Your task to perform on an android device: Go to Amazon Image 0: 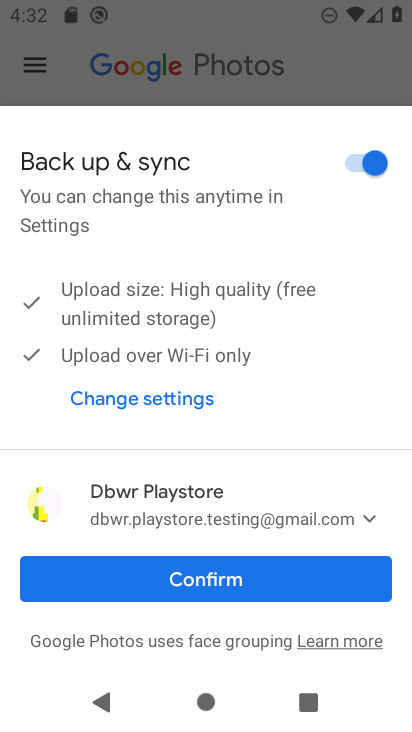
Step 0: press home button
Your task to perform on an android device: Go to Amazon Image 1: 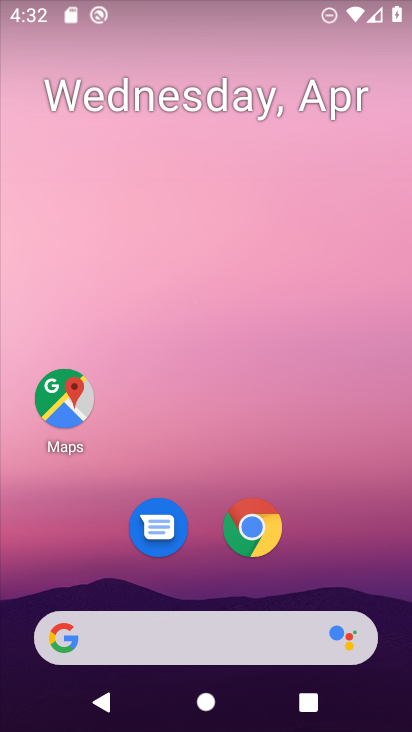
Step 1: click (257, 537)
Your task to perform on an android device: Go to Amazon Image 2: 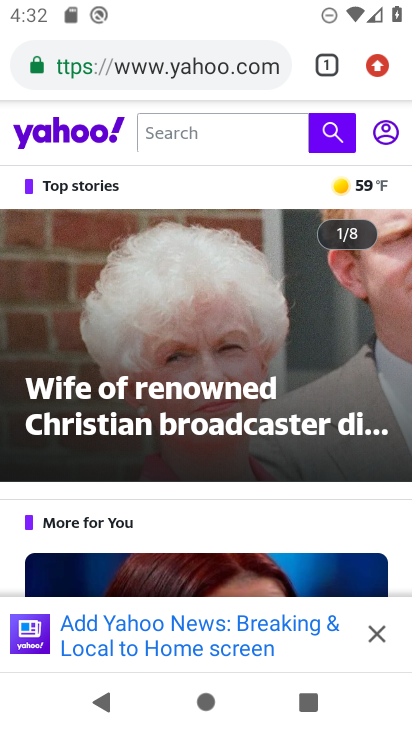
Step 2: click (196, 65)
Your task to perform on an android device: Go to Amazon Image 3: 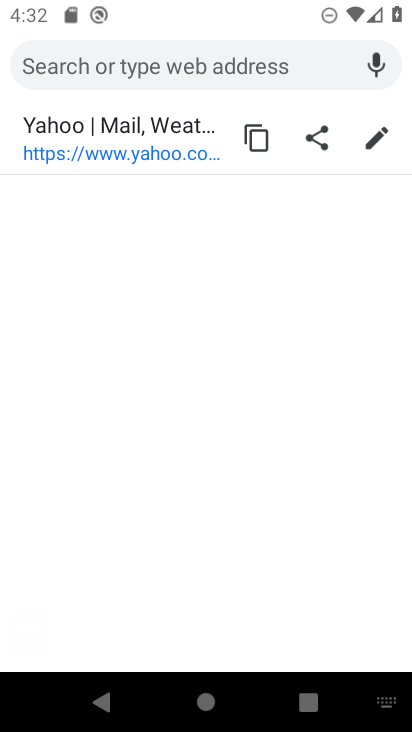
Step 3: type "amazon"
Your task to perform on an android device: Go to Amazon Image 4: 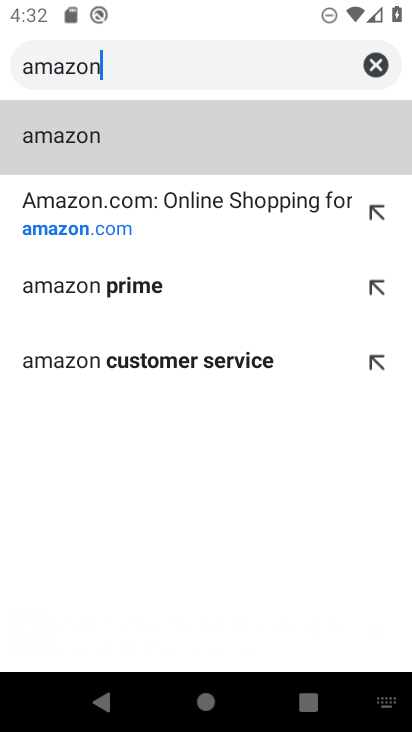
Step 4: click (69, 143)
Your task to perform on an android device: Go to Amazon Image 5: 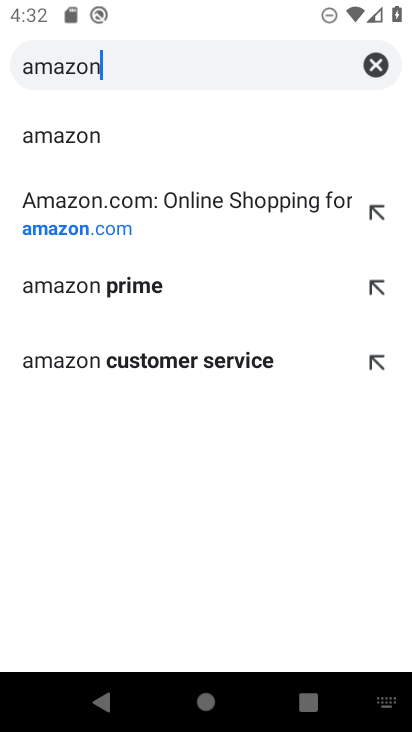
Step 5: click (94, 199)
Your task to perform on an android device: Go to Amazon Image 6: 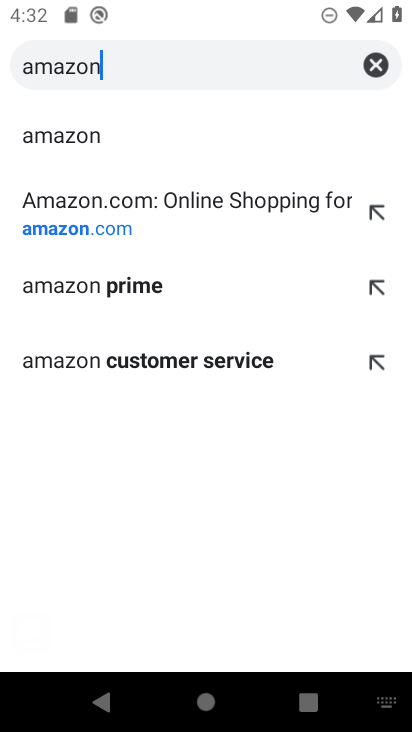
Step 6: click (59, 227)
Your task to perform on an android device: Go to Amazon Image 7: 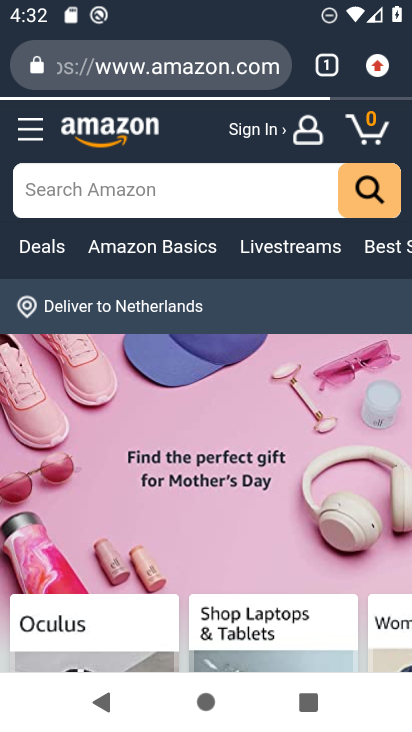
Step 7: task complete